Your task to perform on an android device: Go to wifi settings Image 0: 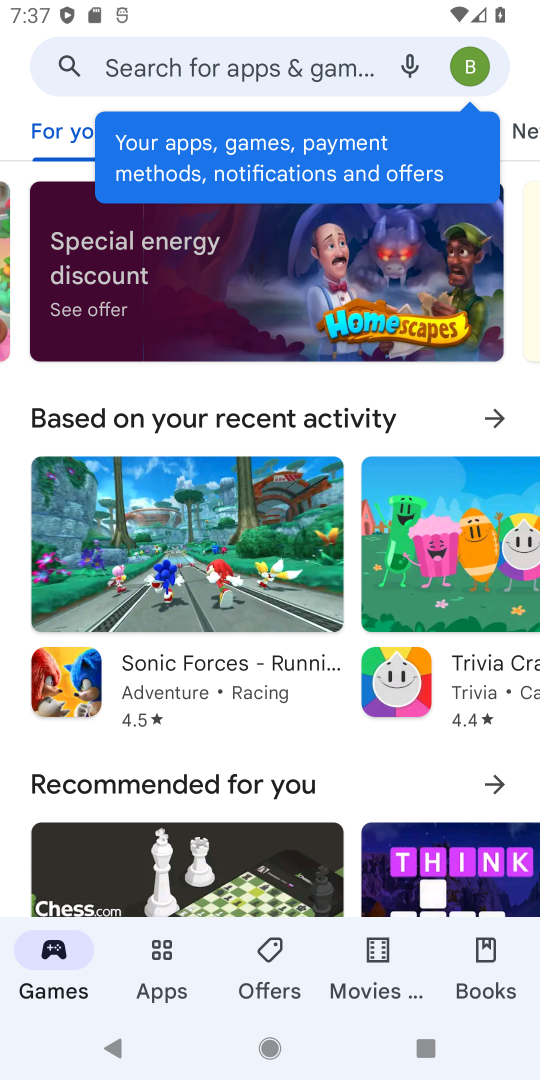
Step 0: press home button
Your task to perform on an android device: Go to wifi settings Image 1: 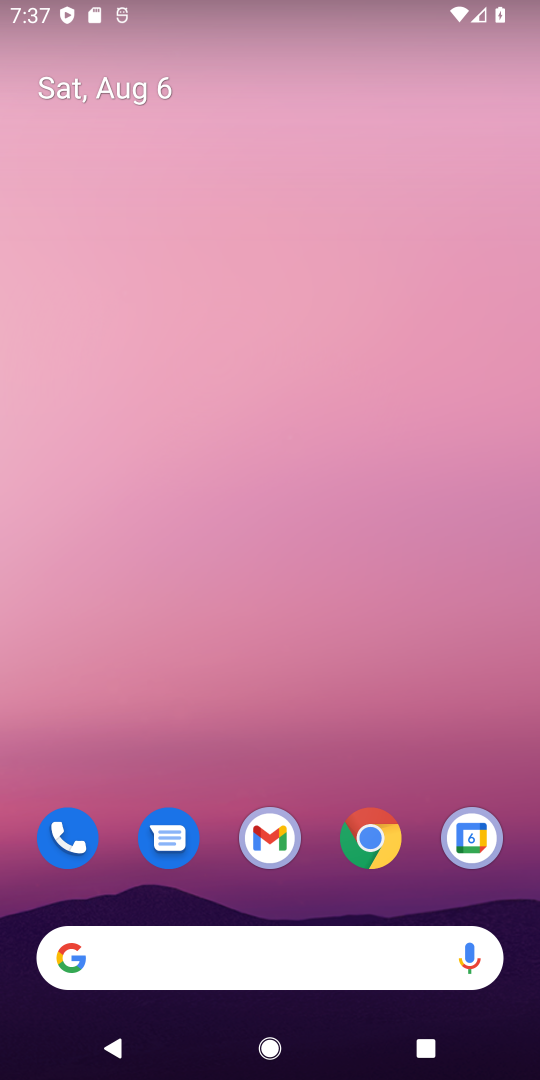
Step 1: drag from (218, 768) to (252, 210)
Your task to perform on an android device: Go to wifi settings Image 2: 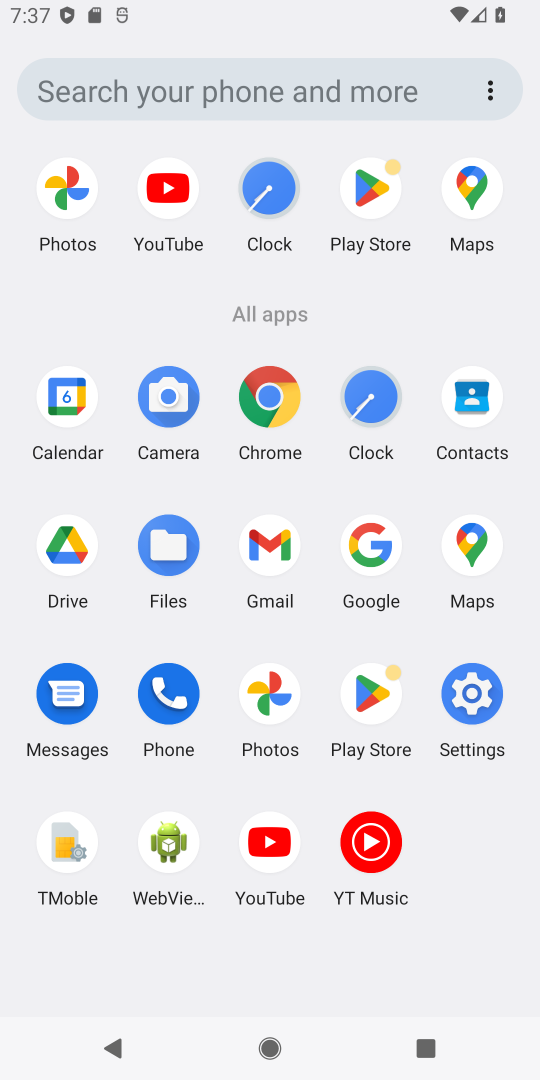
Step 2: click (477, 705)
Your task to perform on an android device: Go to wifi settings Image 3: 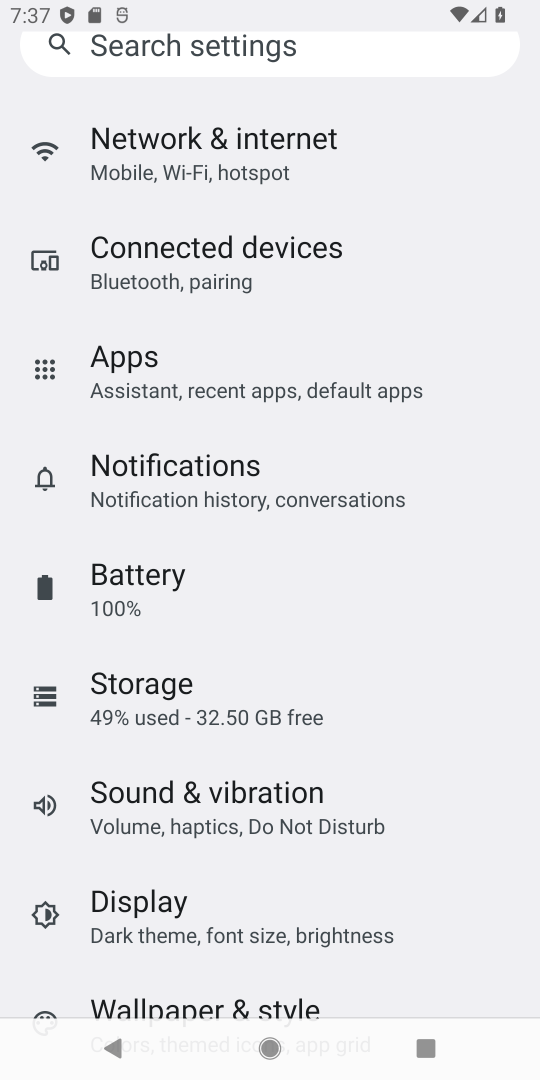
Step 3: click (218, 167)
Your task to perform on an android device: Go to wifi settings Image 4: 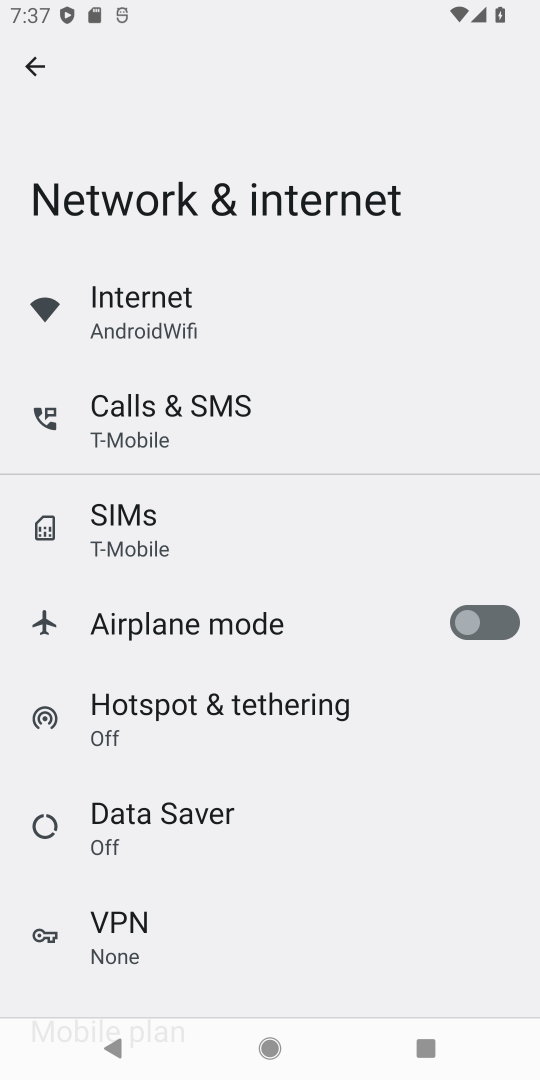
Step 4: click (177, 319)
Your task to perform on an android device: Go to wifi settings Image 5: 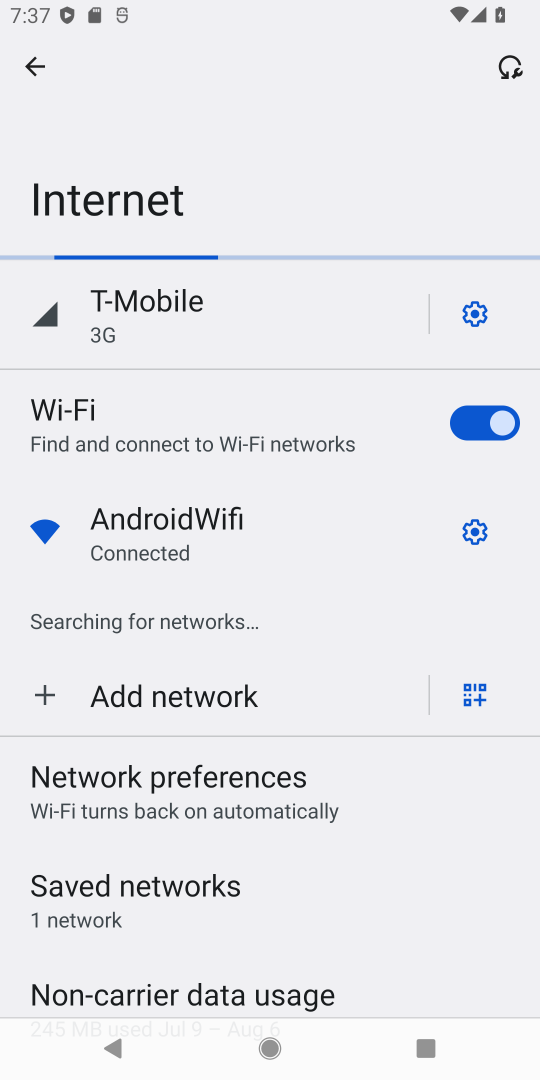
Step 5: click (198, 523)
Your task to perform on an android device: Go to wifi settings Image 6: 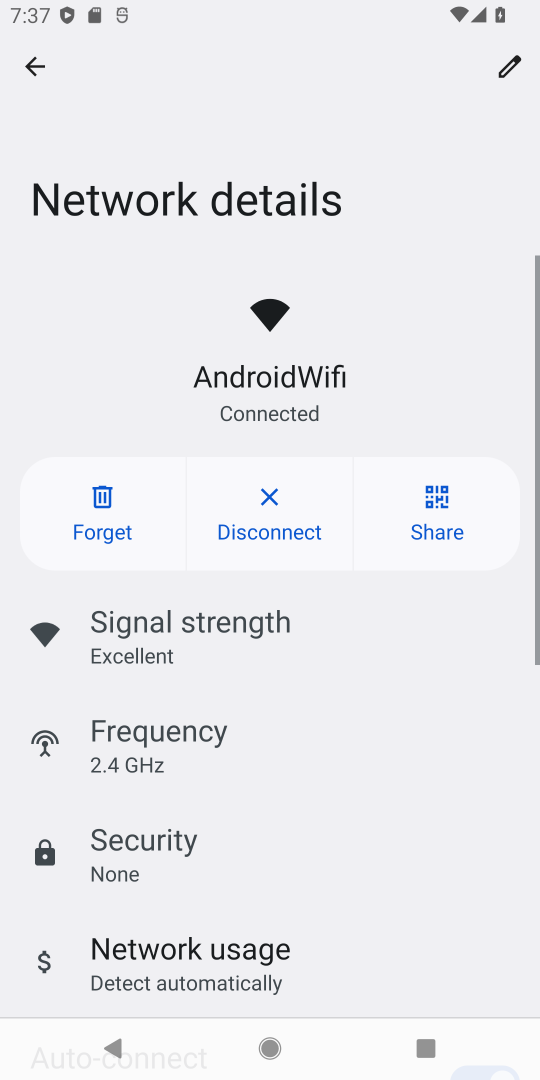
Step 6: task complete